Your task to perform on an android device: Open battery settings Image 0: 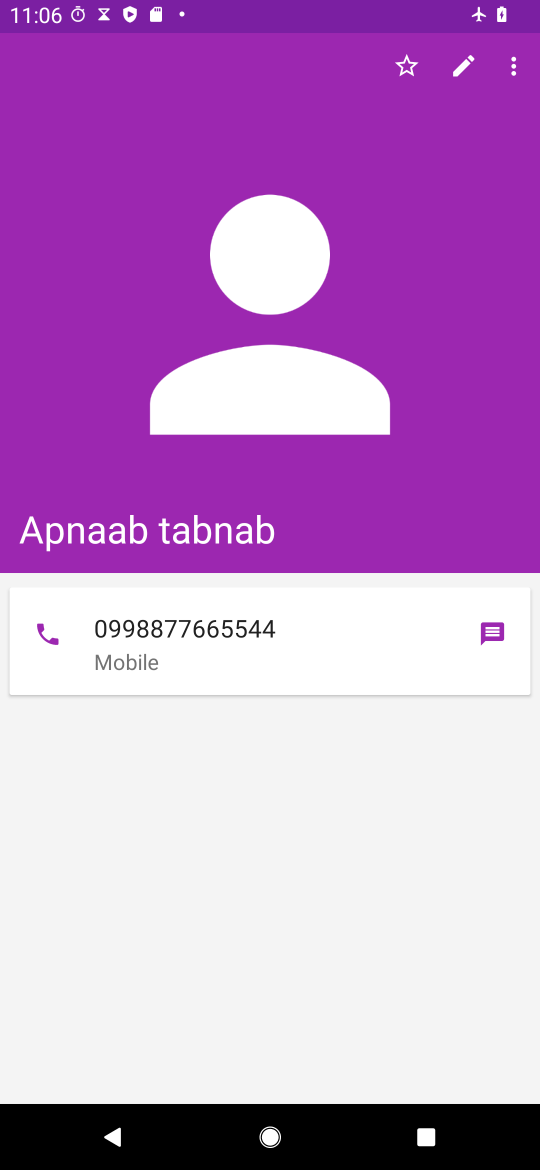
Step 0: press home button
Your task to perform on an android device: Open battery settings Image 1: 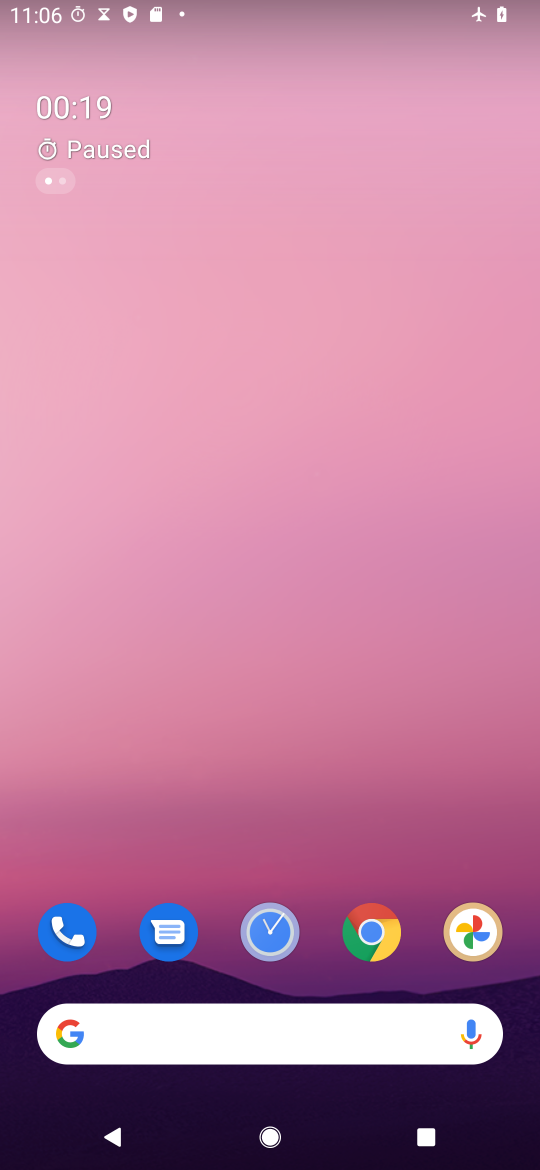
Step 1: drag from (279, 1040) to (379, 238)
Your task to perform on an android device: Open battery settings Image 2: 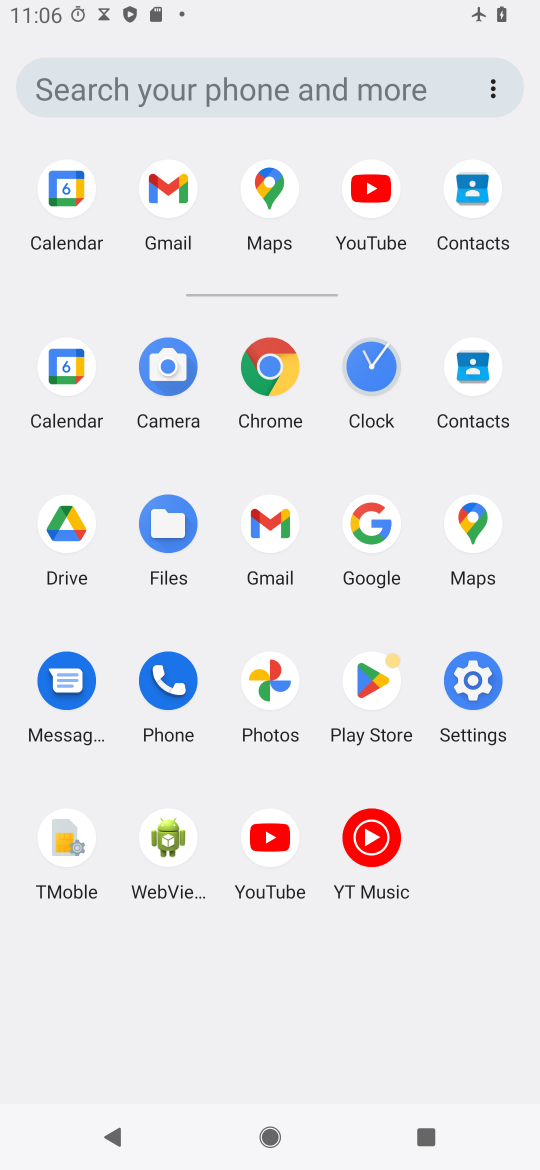
Step 2: click (476, 683)
Your task to perform on an android device: Open battery settings Image 3: 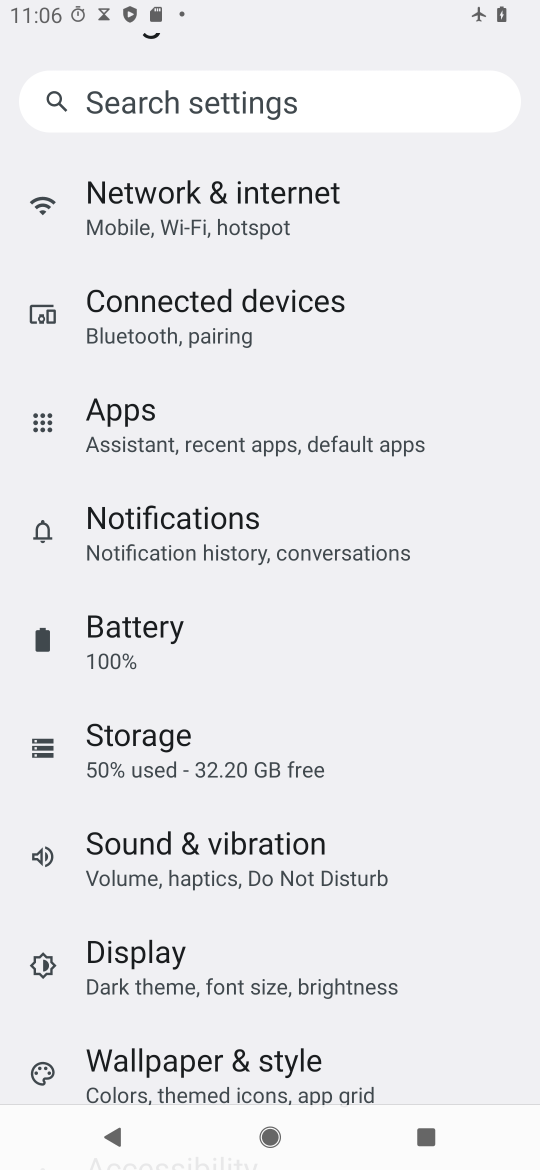
Step 3: click (121, 630)
Your task to perform on an android device: Open battery settings Image 4: 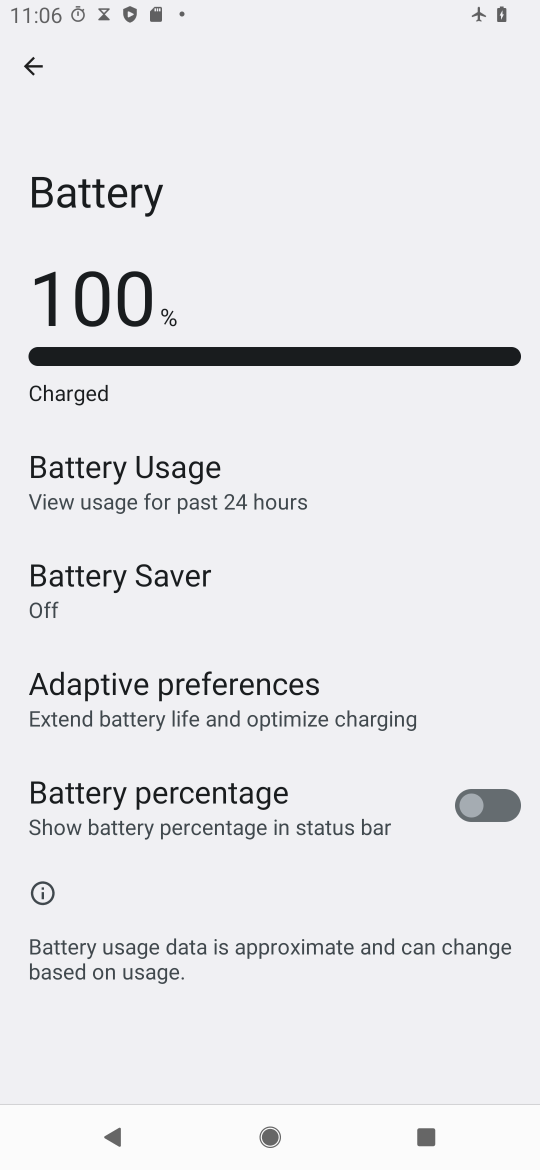
Step 4: task complete